Your task to perform on an android device: Go to internet settings Image 0: 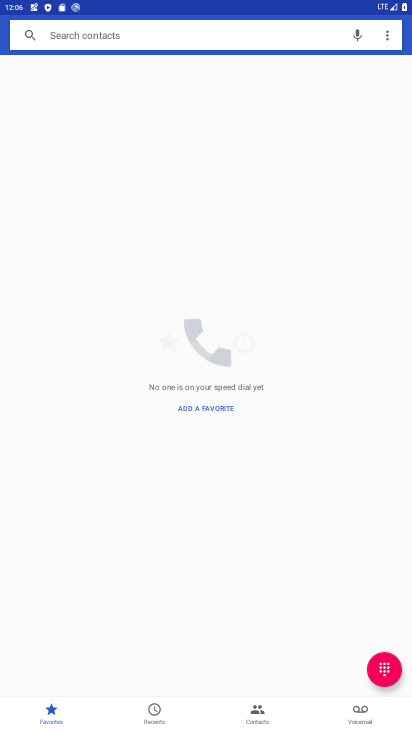
Step 0: press home button
Your task to perform on an android device: Go to internet settings Image 1: 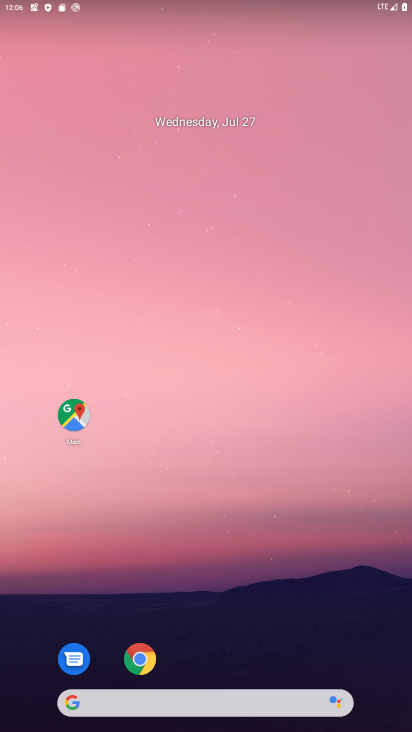
Step 1: drag from (213, 668) to (160, 10)
Your task to perform on an android device: Go to internet settings Image 2: 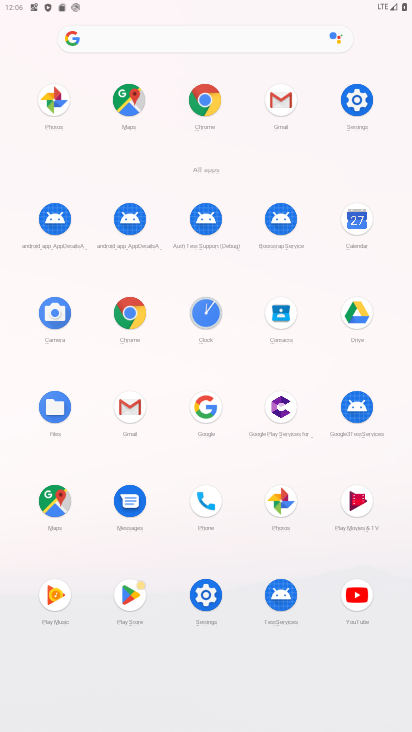
Step 2: click (207, 598)
Your task to perform on an android device: Go to internet settings Image 3: 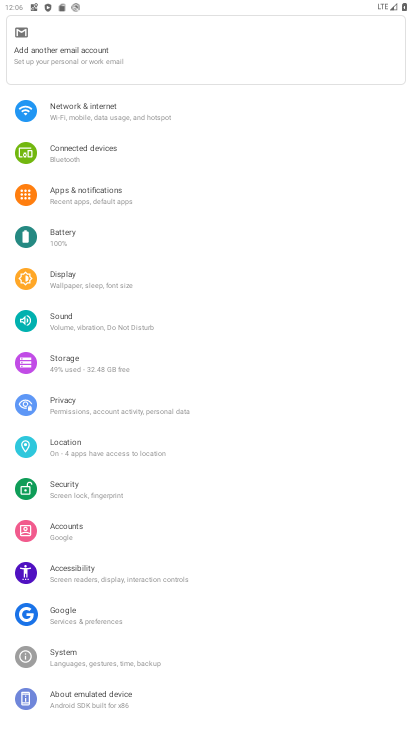
Step 3: click (118, 118)
Your task to perform on an android device: Go to internet settings Image 4: 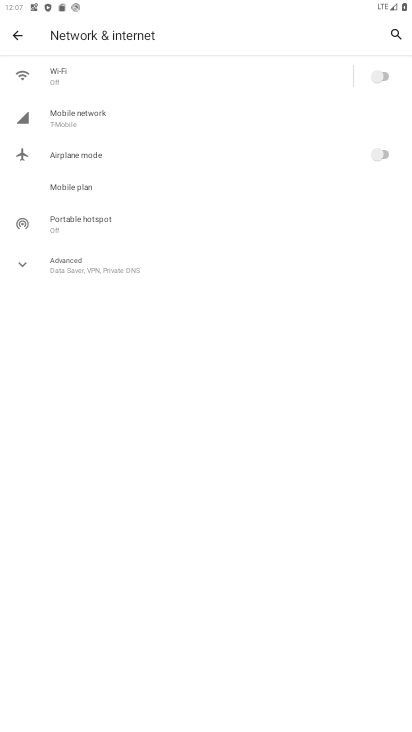
Step 4: click (68, 270)
Your task to perform on an android device: Go to internet settings Image 5: 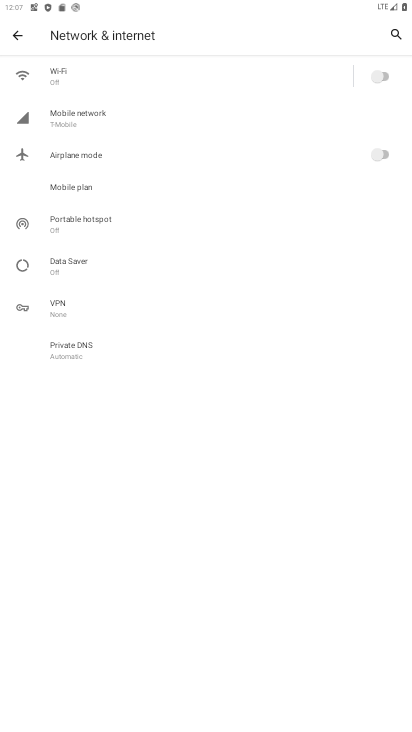
Step 5: task complete